Your task to perform on an android device: check out phone information Image 0: 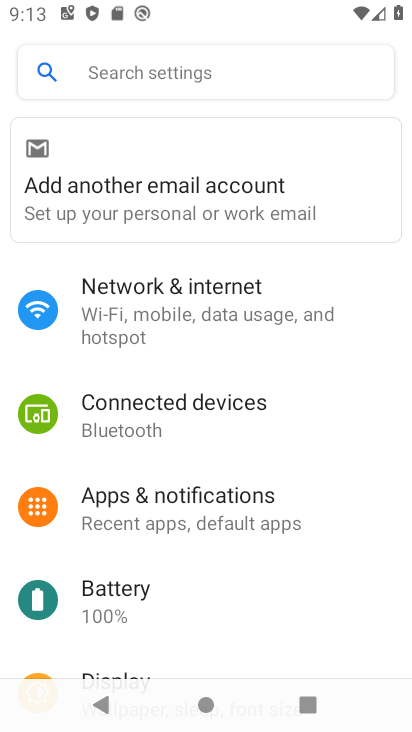
Step 0: press home button
Your task to perform on an android device: check out phone information Image 1: 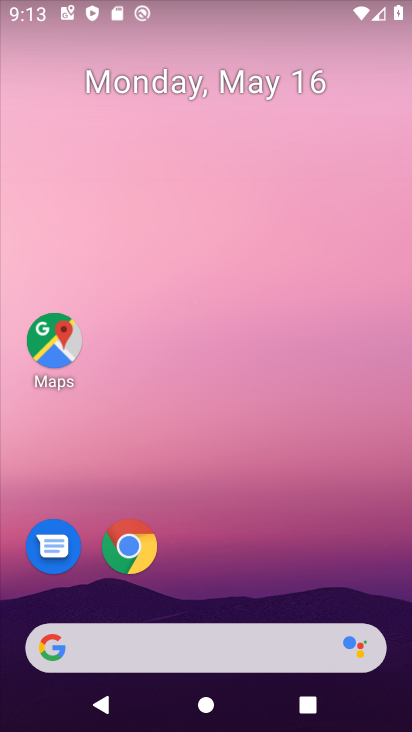
Step 1: drag from (235, 669) to (177, 241)
Your task to perform on an android device: check out phone information Image 2: 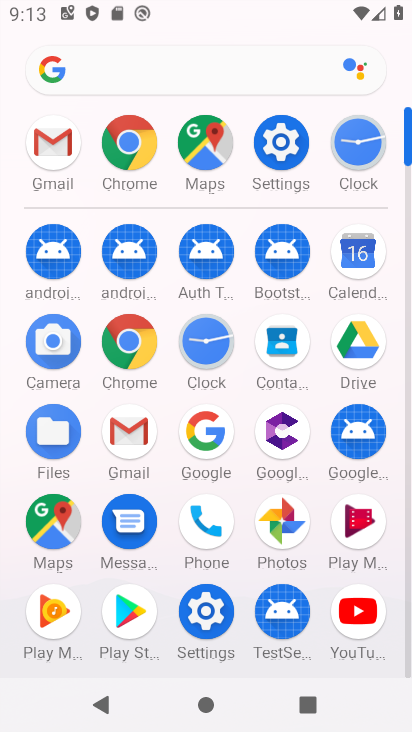
Step 2: click (298, 145)
Your task to perform on an android device: check out phone information Image 3: 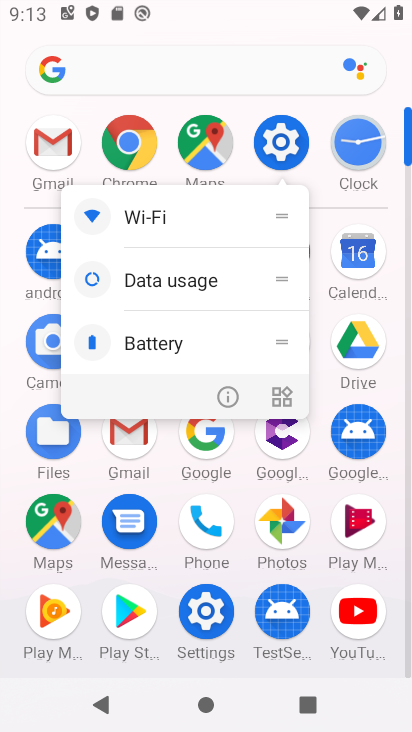
Step 3: click (279, 163)
Your task to perform on an android device: check out phone information Image 4: 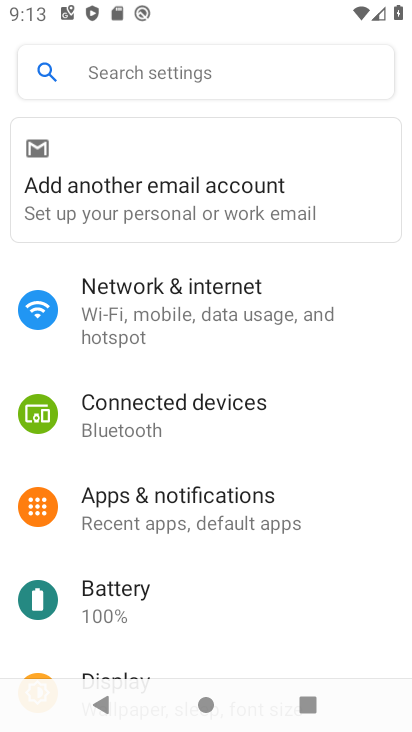
Step 4: click (136, 89)
Your task to perform on an android device: check out phone information Image 5: 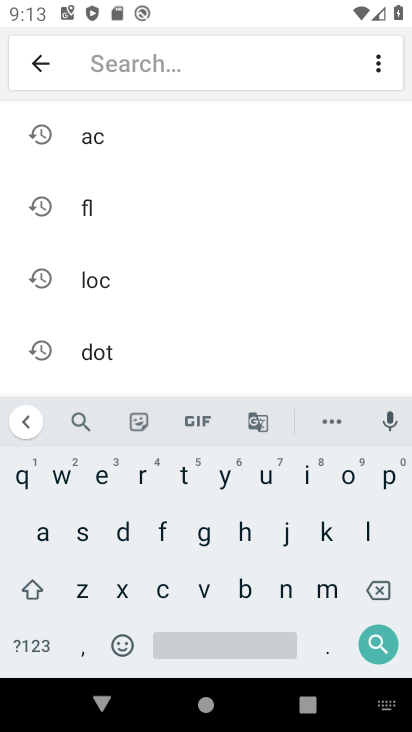
Step 5: click (33, 530)
Your task to perform on an android device: check out phone information Image 6: 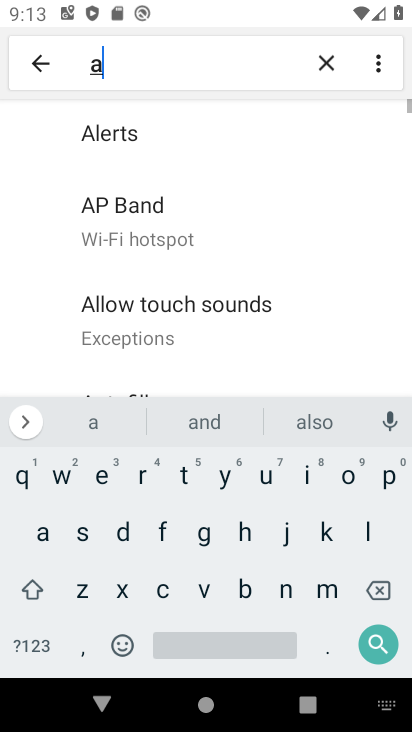
Step 6: click (243, 587)
Your task to perform on an android device: check out phone information Image 7: 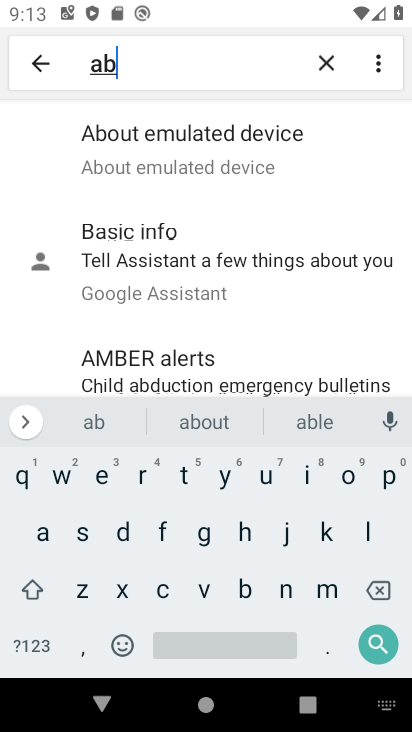
Step 7: click (209, 176)
Your task to perform on an android device: check out phone information Image 8: 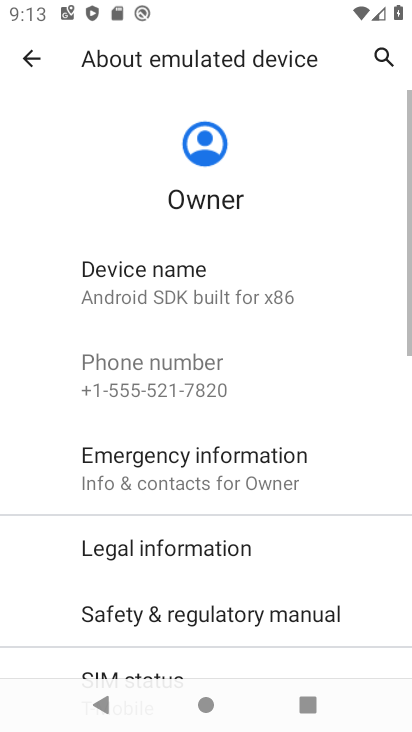
Step 8: task complete